Your task to perform on an android device: open a new tab in the chrome app Image 0: 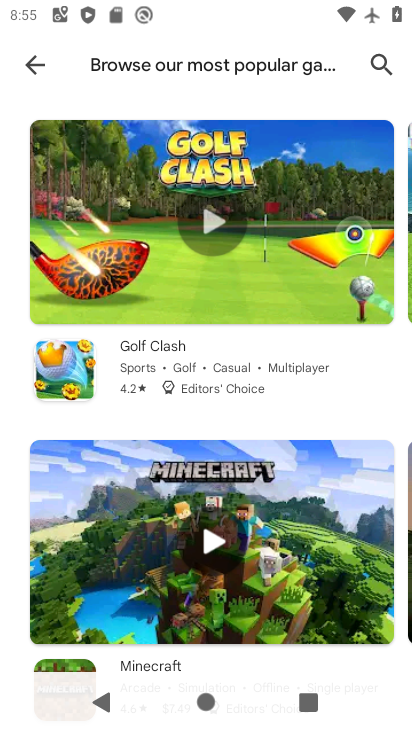
Step 0: press home button
Your task to perform on an android device: open a new tab in the chrome app Image 1: 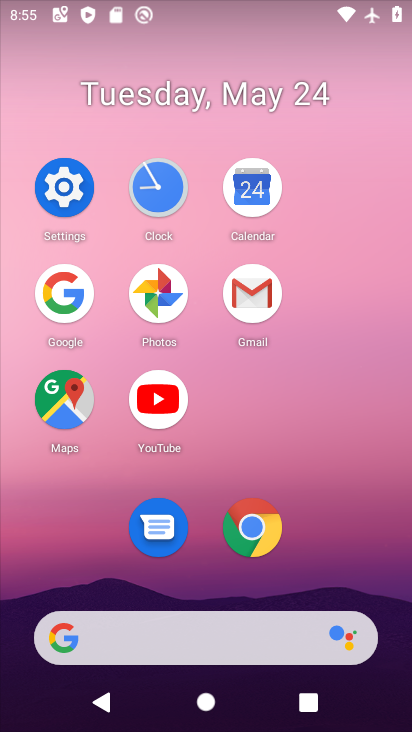
Step 1: click (264, 521)
Your task to perform on an android device: open a new tab in the chrome app Image 2: 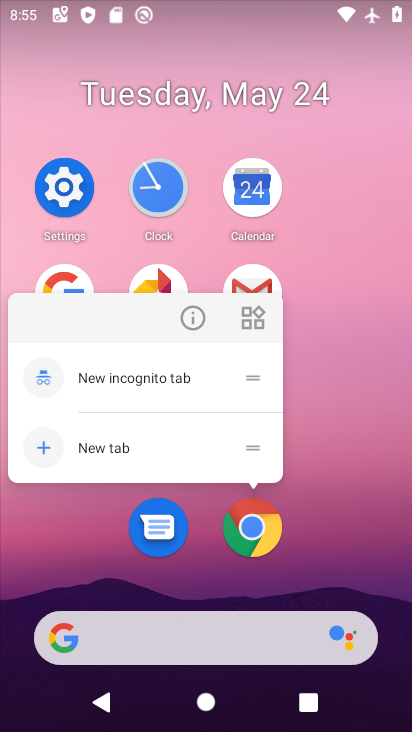
Step 2: click (259, 527)
Your task to perform on an android device: open a new tab in the chrome app Image 3: 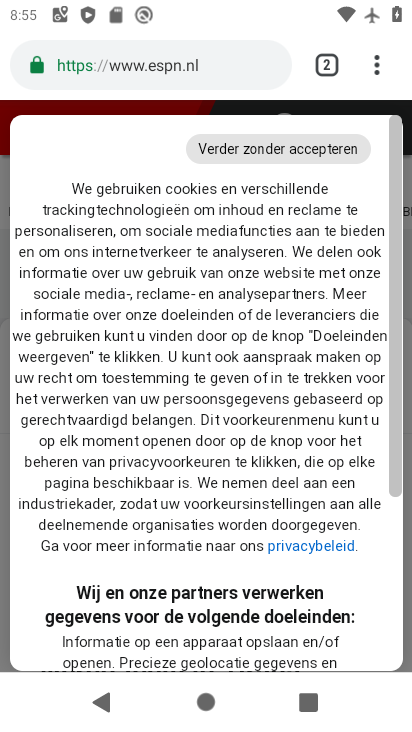
Step 3: click (326, 60)
Your task to perform on an android device: open a new tab in the chrome app Image 4: 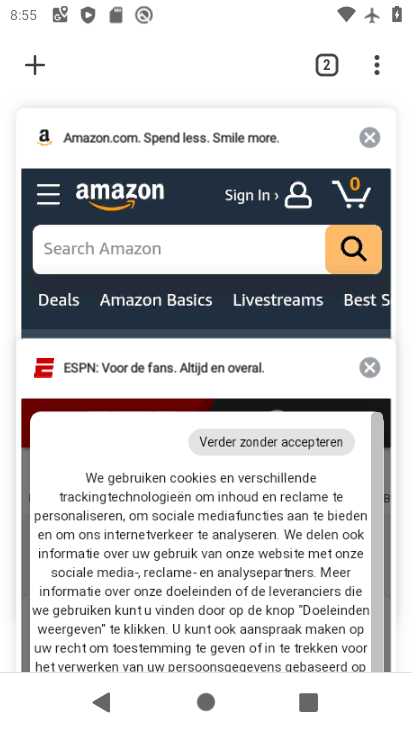
Step 4: click (48, 72)
Your task to perform on an android device: open a new tab in the chrome app Image 5: 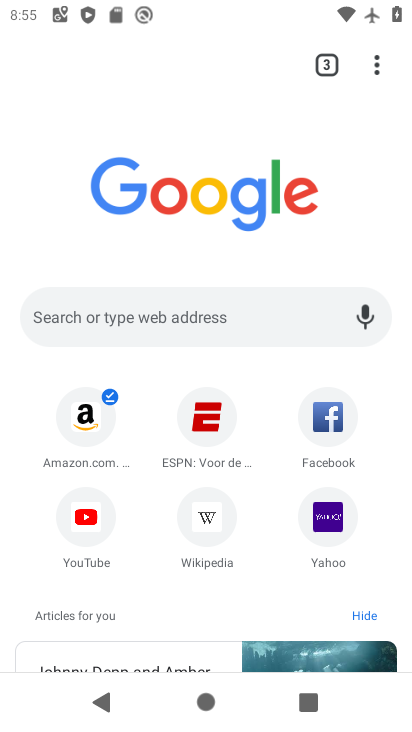
Step 5: task complete